Your task to perform on an android device: find snoozed emails in the gmail app Image 0: 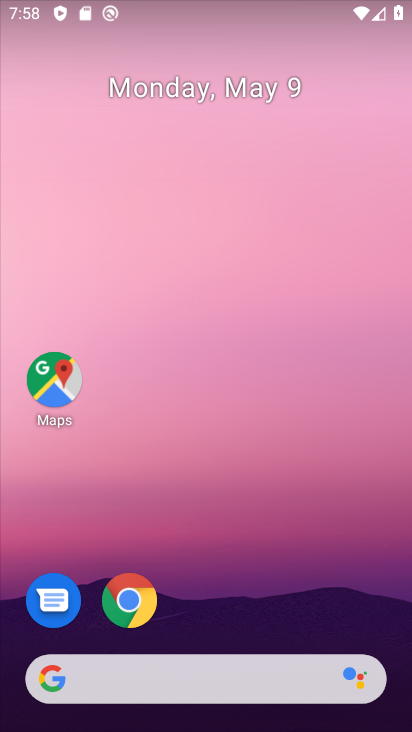
Step 0: drag from (244, 570) to (237, 42)
Your task to perform on an android device: find snoozed emails in the gmail app Image 1: 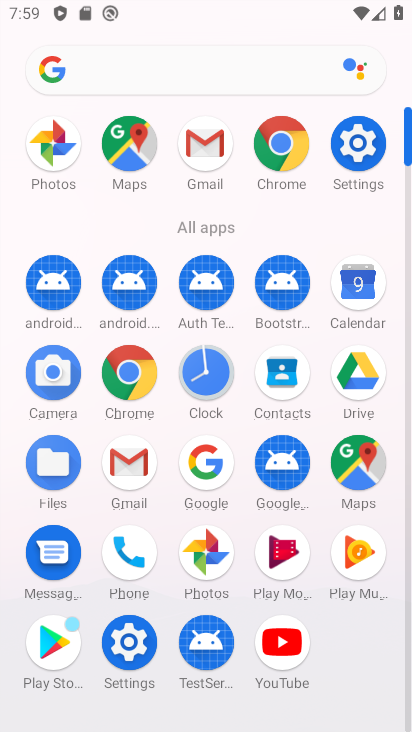
Step 1: drag from (15, 568) to (13, 325)
Your task to perform on an android device: find snoozed emails in the gmail app Image 2: 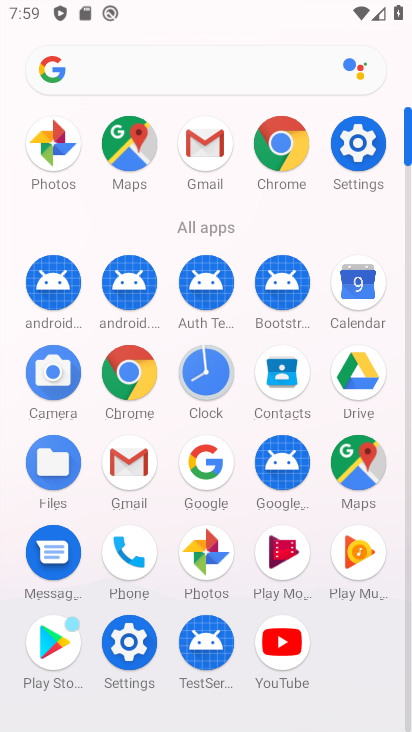
Step 2: click (124, 458)
Your task to perform on an android device: find snoozed emails in the gmail app Image 3: 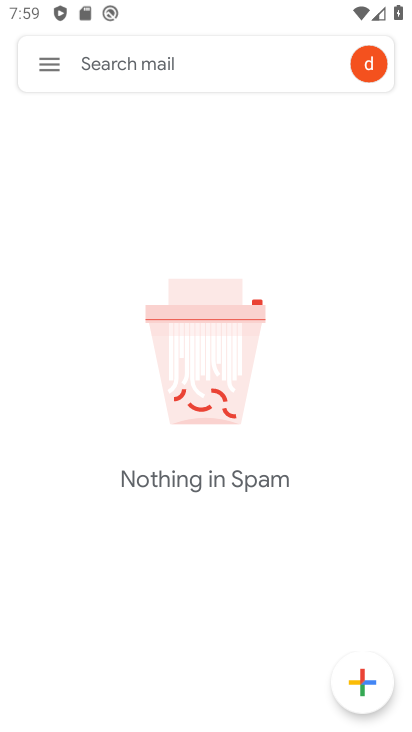
Step 3: click (50, 66)
Your task to perform on an android device: find snoozed emails in the gmail app Image 4: 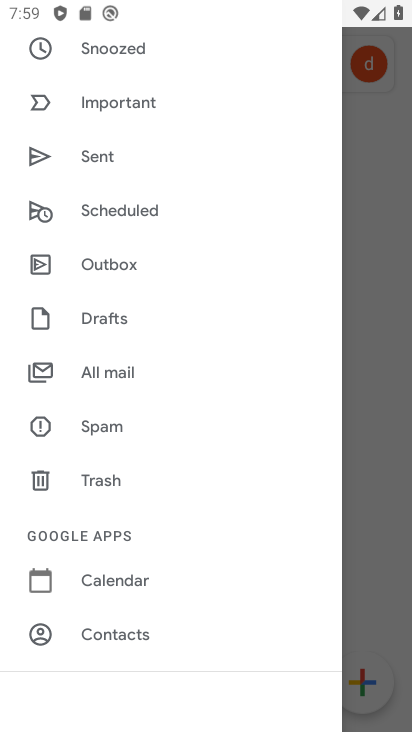
Step 4: drag from (242, 543) to (233, 156)
Your task to perform on an android device: find snoozed emails in the gmail app Image 5: 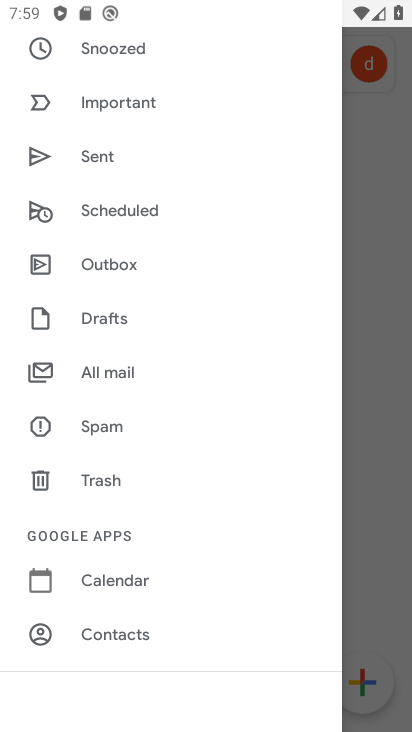
Step 5: drag from (165, 292) to (203, 598)
Your task to perform on an android device: find snoozed emails in the gmail app Image 6: 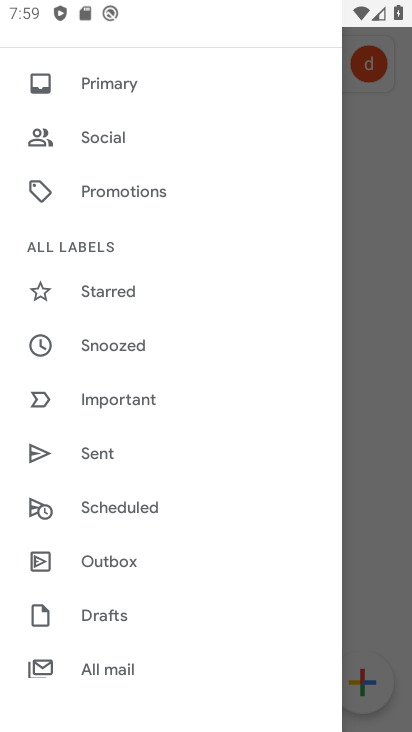
Step 6: click (142, 342)
Your task to perform on an android device: find snoozed emails in the gmail app Image 7: 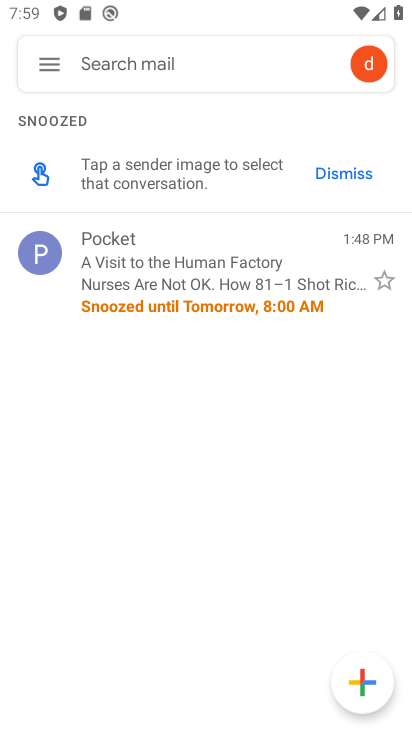
Step 7: task complete